Your task to perform on an android device: Open the calendar app, open the side menu, and click the "Day" option Image 0: 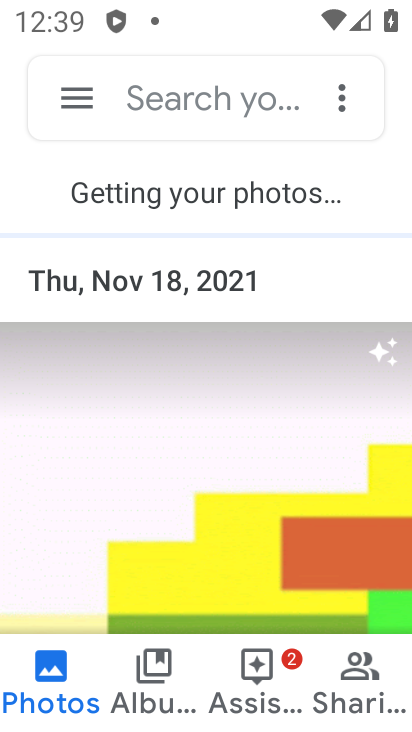
Step 0: click (65, 96)
Your task to perform on an android device: Open the calendar app, open the side menu, and click the "Day" option Image 1: 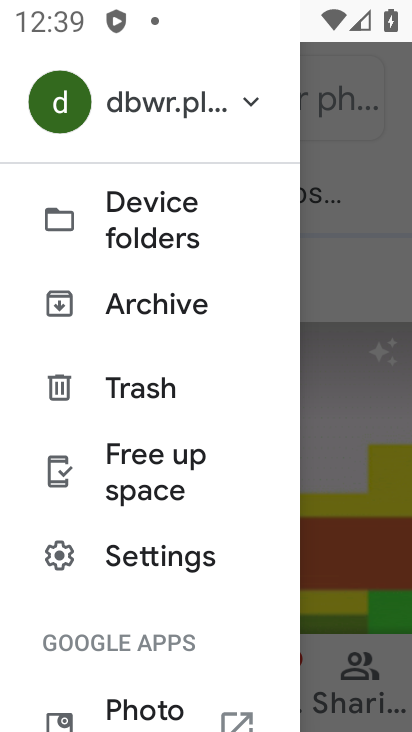
Step 1: press home button
Your task to perform on an android device: Open the calendar app, open the side menu, and click the "Day" option Image 2: 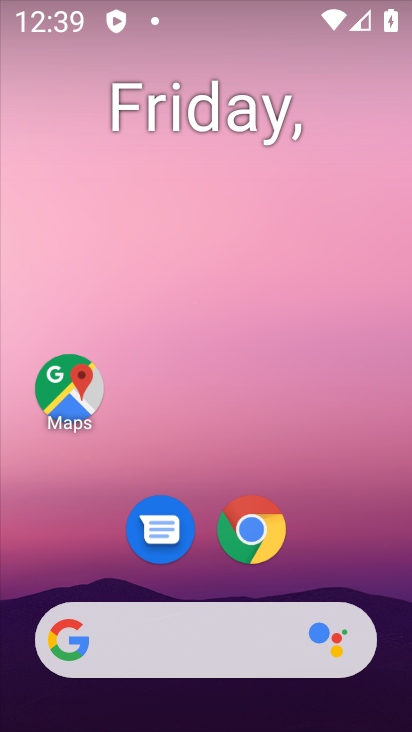
Step 2: drag from (221, 546) to (218, 206)
Your task to perform on an android device: Open the calendar app, open the side menu, and click the "Day" option Image 3: 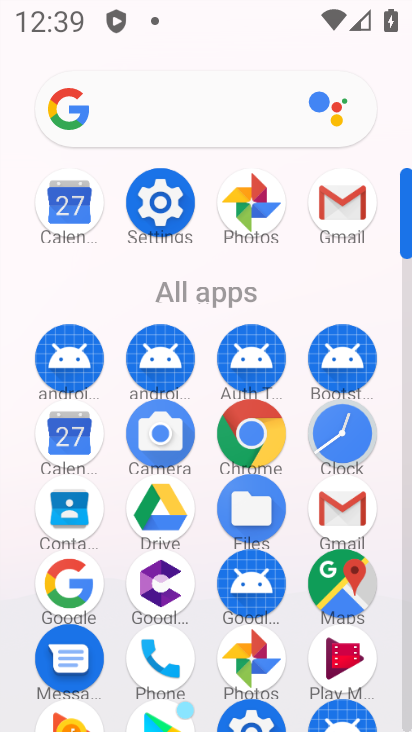
Step 3: click (66, 210)
Your task to perform on an android device: Open the calendar app, open the side menu, and click the "Day" option Image 4: 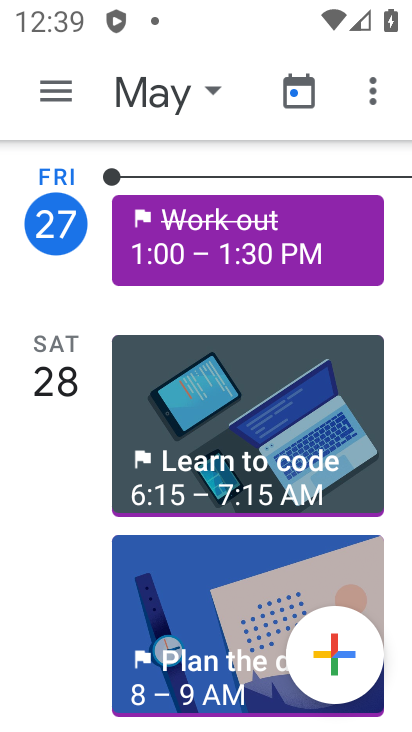
Step 4: click (50, 87)
Your task to perform on an android device: Open the calendar app, open the side menu, and click the "Day" option Image 5: 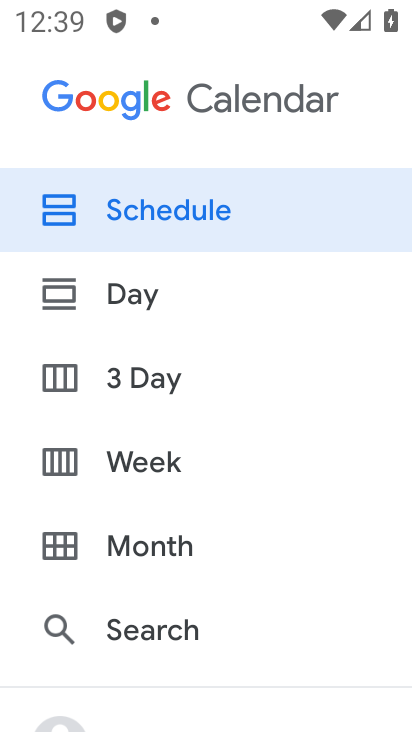
Step 5: click (136, 285)
Your task to perform on an android device: Open the calendar app, open the side menu, and click the "Day" option Image 6: 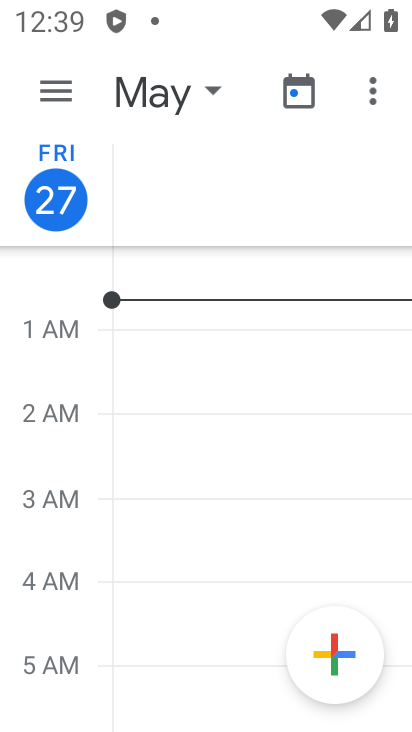
Step 6: task complete